Your task to perform on an android device: change notifications settings Image 0: 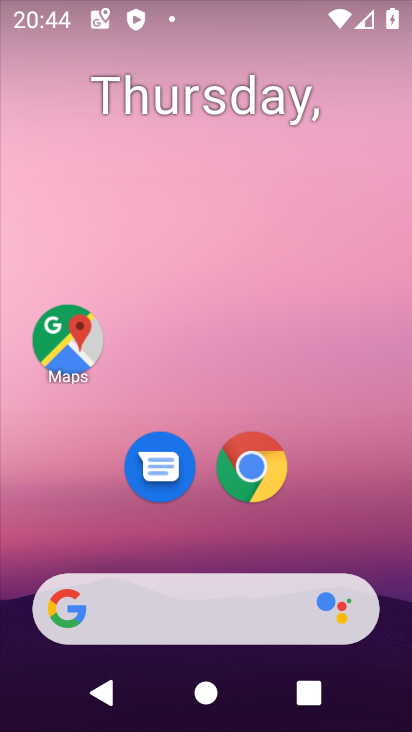
Step 0: drag from (336, 518) to (347, 272)
Your task to perform on an android device: change notifications settings Image 1: 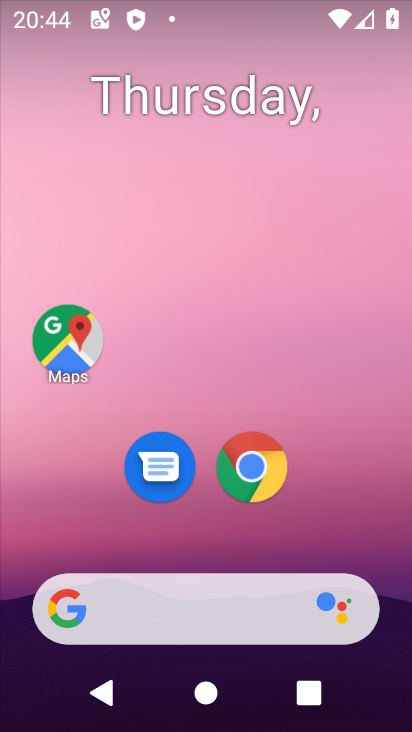
Step 1: drag from (288, 550) to (321, 234)
Your task to perform on an android device: change notifications settings Image 2: 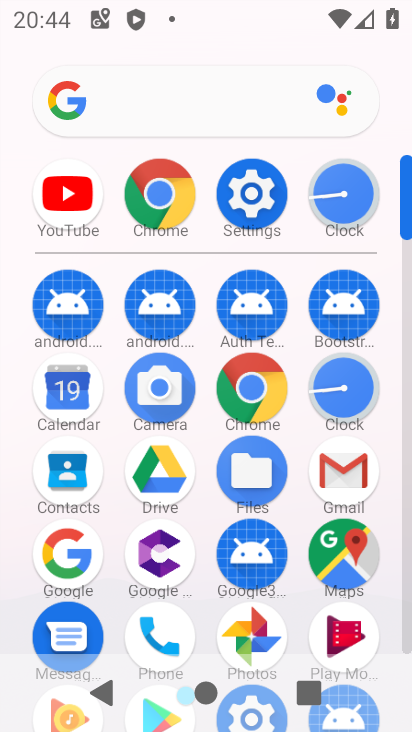
Step 2: drag from (204, 595) to (225, 453)
Your task to perform on an android device: change notifications settings Image 3: 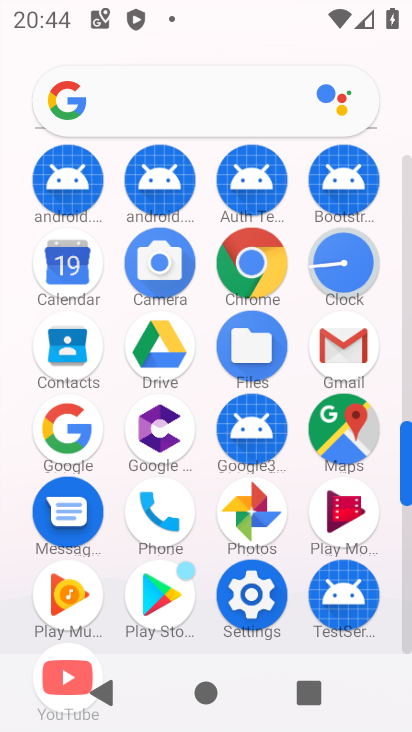
Step 3: click (257, 599)
Your task to perform on an android device: change notifications settings Image 4: 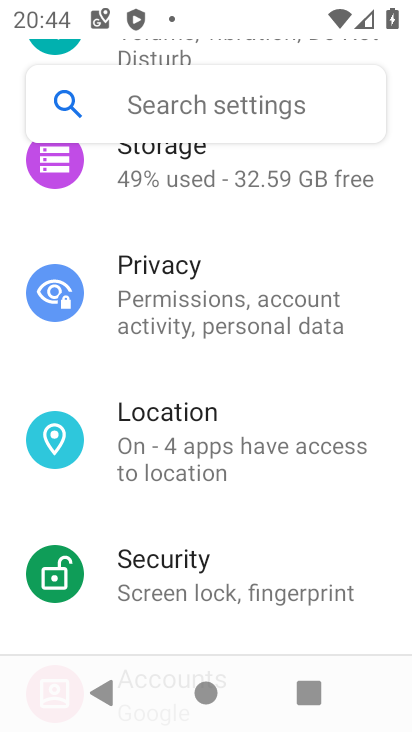
Step 4: drag from (216, 168) to (229, 267)
Your task to perform on an android device: change notifications settings Image 5: 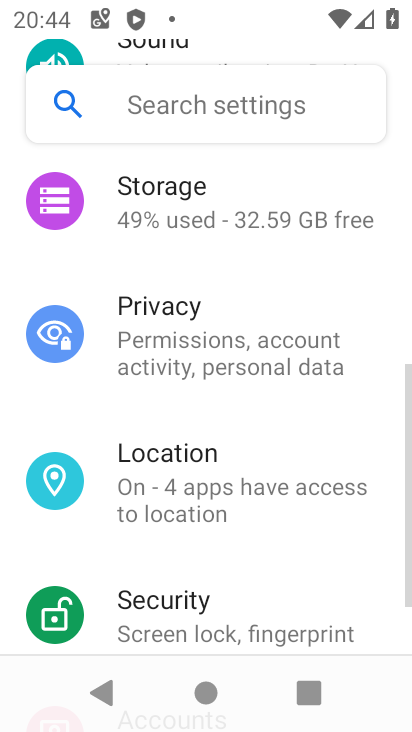
Step 5: drag from (226, 280) to (181, 472)
Your task to perform on an android device: change notifications settings Image 6: 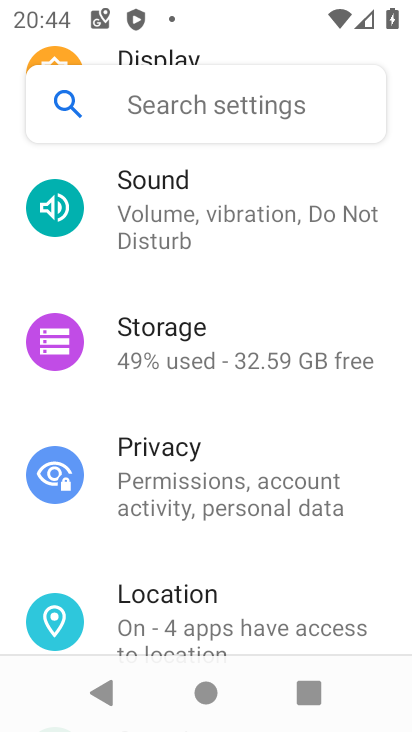
Step 6: drag from (267, 242) to (247, 527)
Your task to perform on an android device: change notifications settings Image 7: 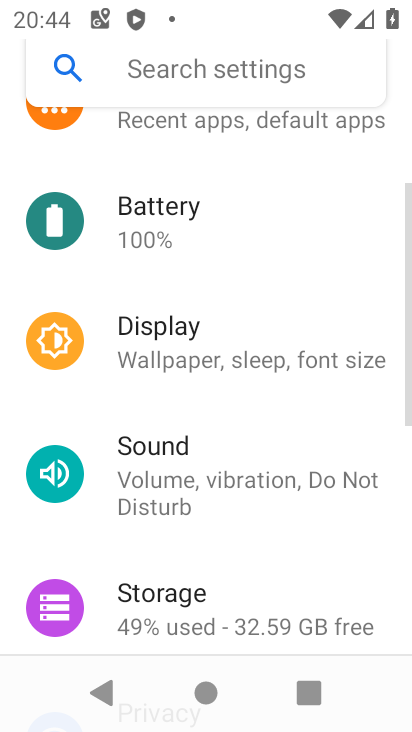
Step 7: drag from (220, 192) to (197, 568)
Your task to perform on an android device: change notifications settings Image 8: 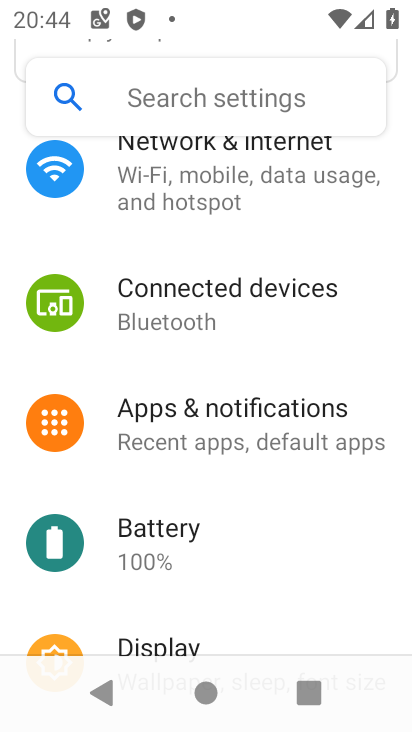
Step 8: click (184, 421)
Your task to perform on an android device: change notifications settings Image 9: 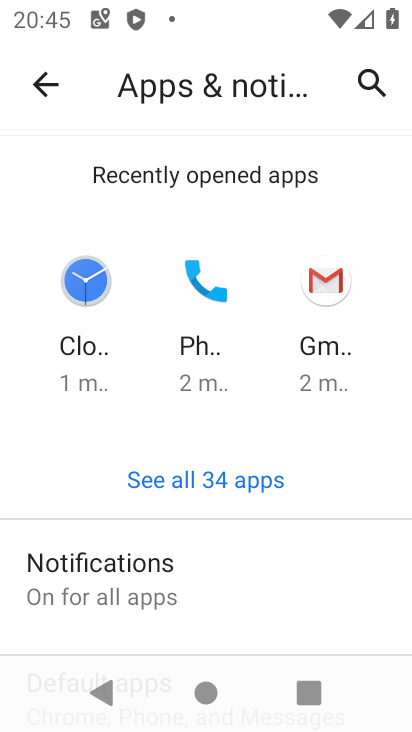
Step 9: click (193, 577)
Your task to perform on an android device: change notifications settings Image 10: 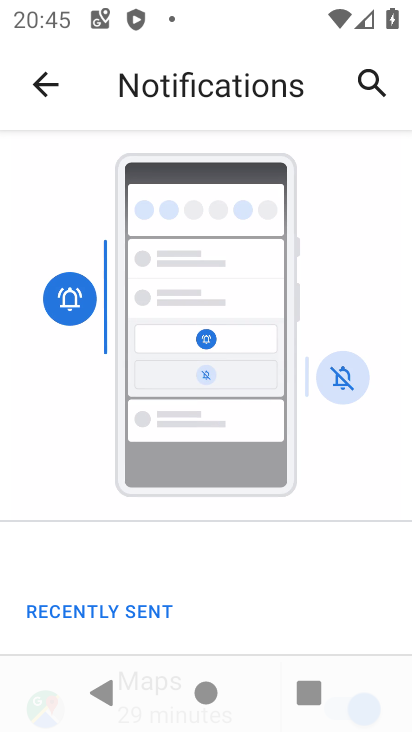
Step 10: drag from (292, 617) to (339, 149)
Your task to perform on an android device: change notifications settings Image 11: 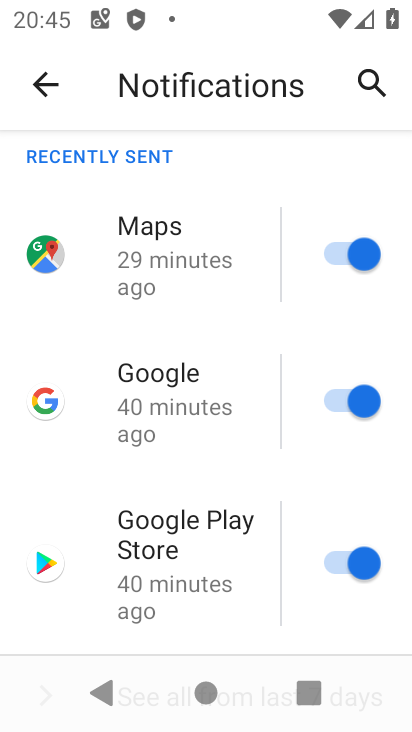
Step 11: click (336, 244)
Your task to perform on an android device: change notifications settings Image 12: 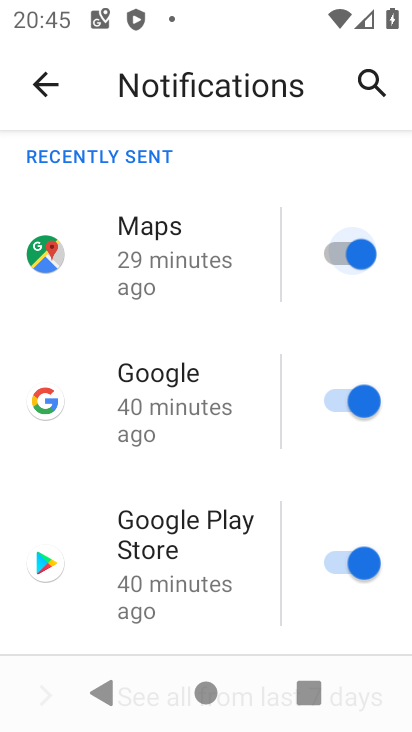
Step 12: click (353, 381)
Your task to perform on an android device: change notifications settings Image 13: 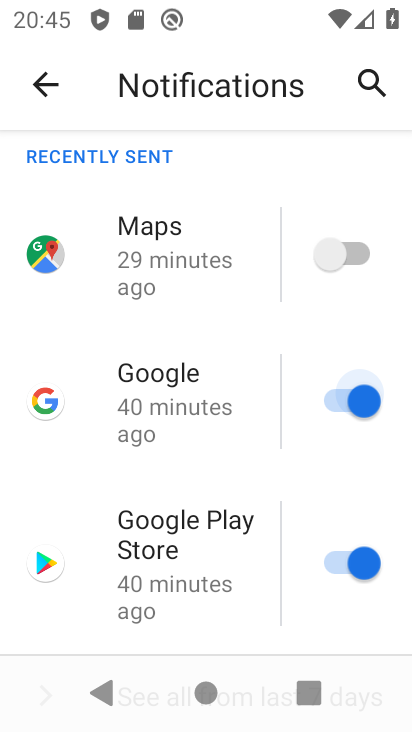
Step 13: click (355, 563)
Your task to perform on an android device: change notifications settings Image 14: 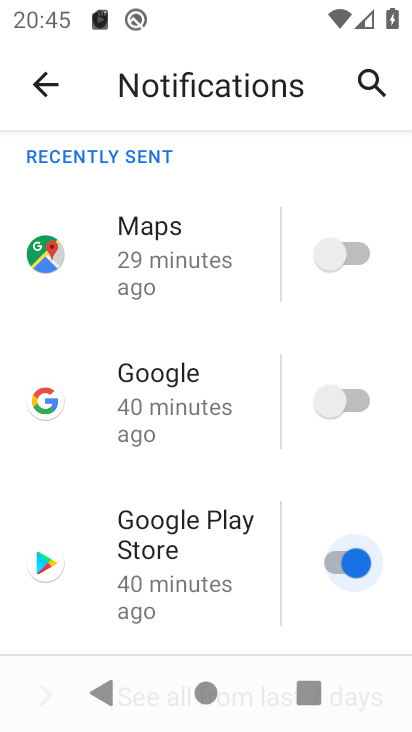
Step 14: drag from (147, 616) to (265, 244)
Your task to perform on an android device: change notifications settings Image 15: 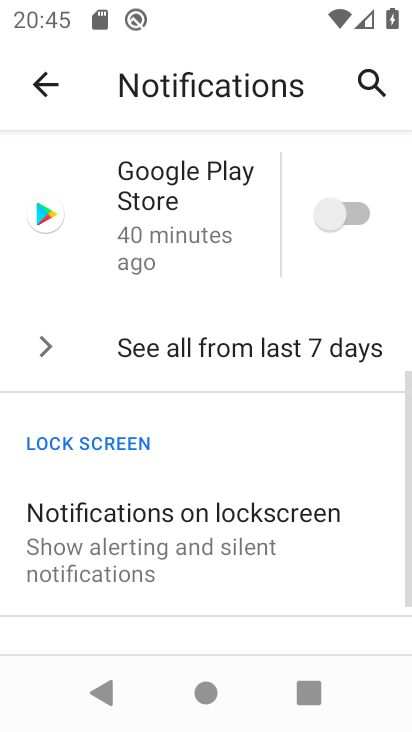
Step 15: click (218, 379)
Your task to perform on an android device: change notifications settings Image 16: 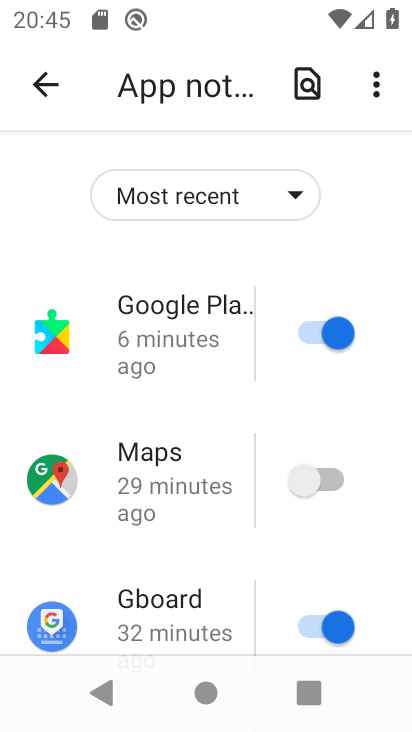
Step 16: click (319, 341)
Your task to perform on an android device: change notifications settings Image 17: 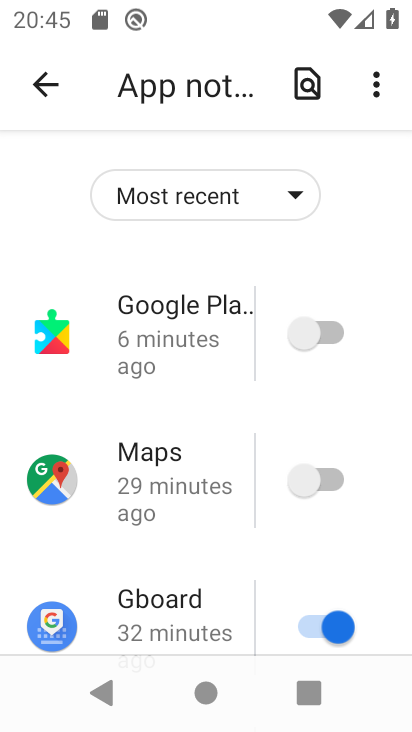
Step 17: drag from (145, 606) to (249, 244)
Your task to perform on an android device: change notifications settings Image 18: 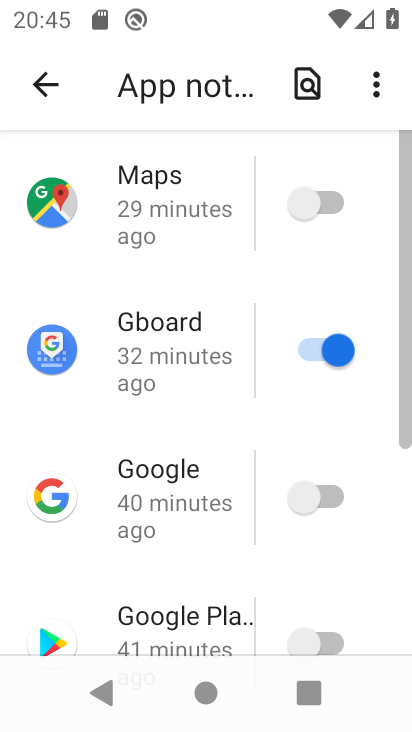
Step 18: click (315, 340)
Your task to perform on an android device: change notifications settings Image 19: 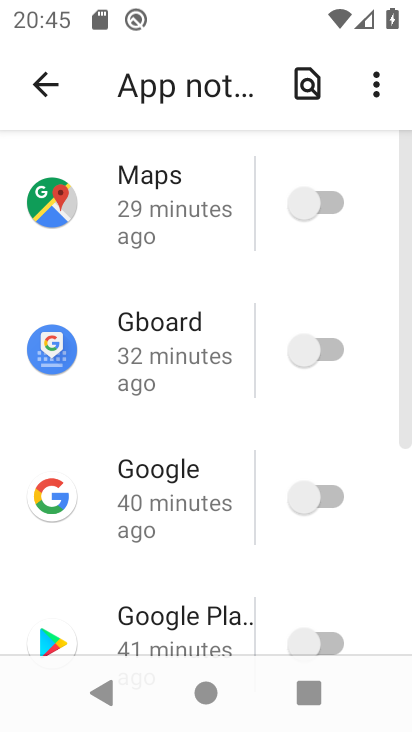
Step 19: drag from (177, 486) to (253, 196)
Your task to perform on an android device: change notifications settings Image 20: 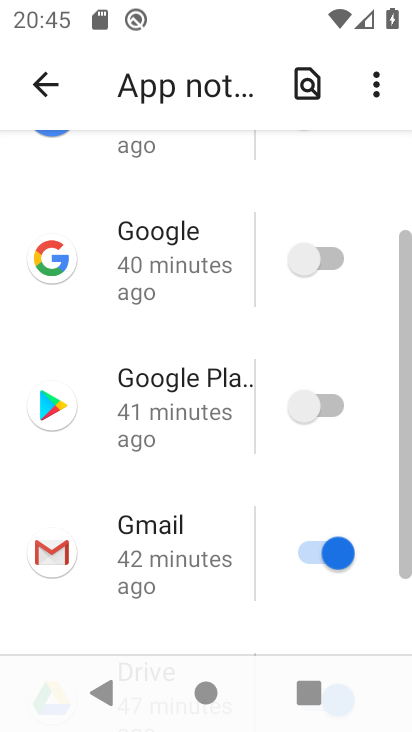
Step 20: click (304, 542)
Your task to perform on an android device: change notifications settings Image 21: 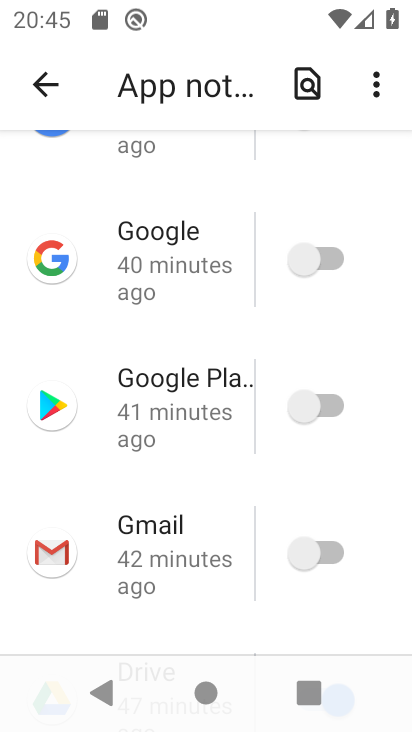
Step 21: task complete